Your task to perform on an android device: change the clock display to digital Image 0: 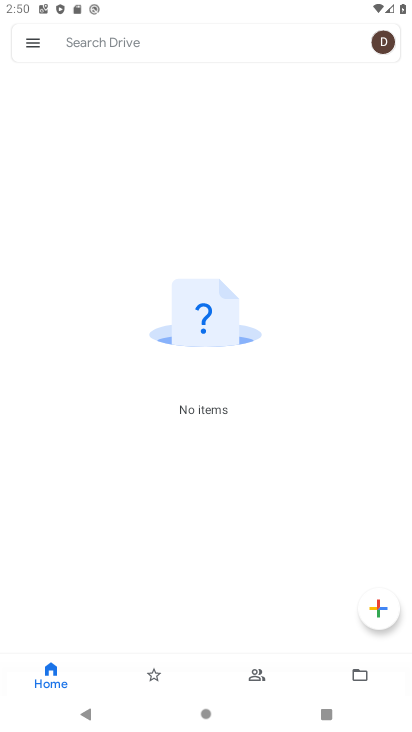
Step 0: press home button
Your task to perform on an android device: change the clock display to digital Image 1: 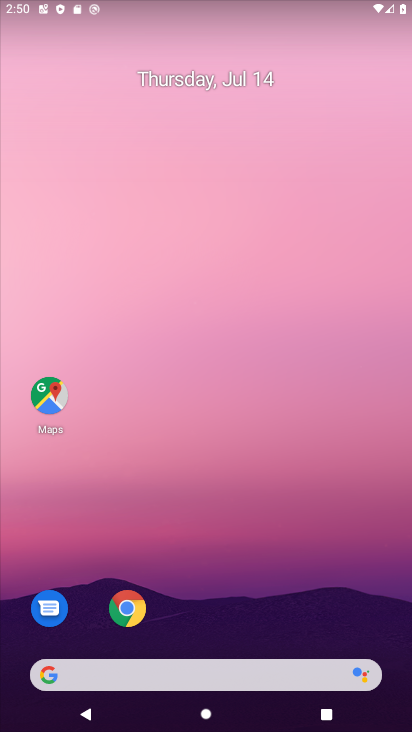
Step 1: drag from (22, 615) to (269, 220)
Your task to perform on an android device: change the clock display to digital Image 2: 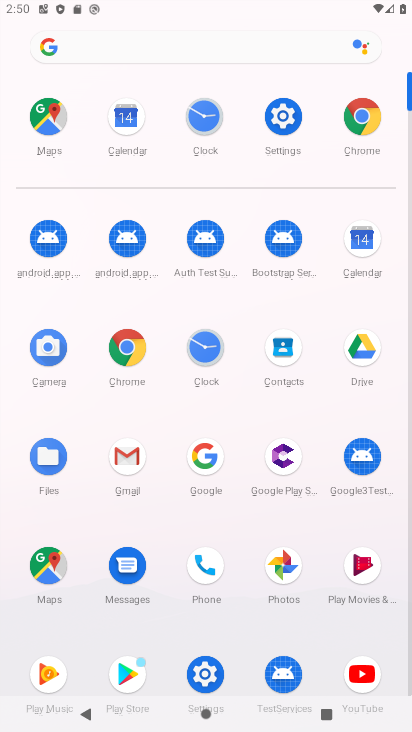
Step 2: click (209, 357)
Your task to perform on an android device: change the clock display to digital Image 3: 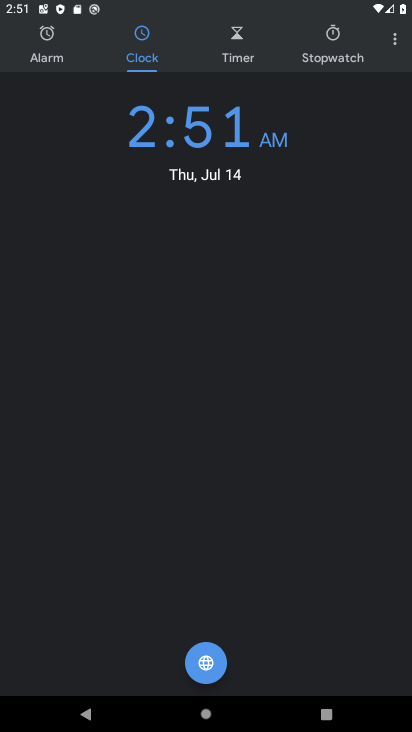
Step 3: click (388, 45)
Your task to perform on an android device: change the clock display to digital Image 4: 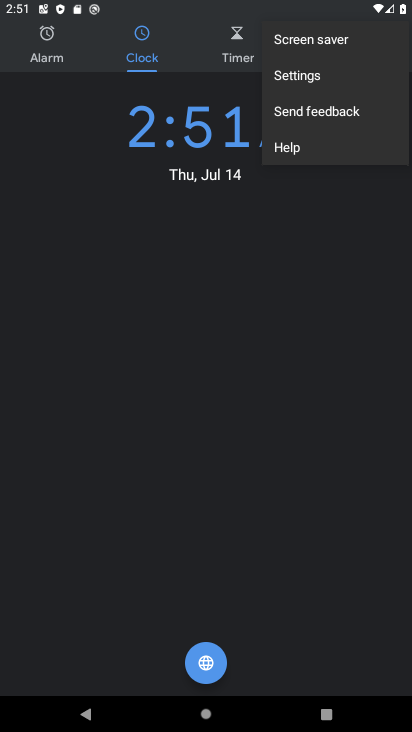
Step 4: click (332, 77)
Your task to perform on an android device: change the clock display to digital Image 5: 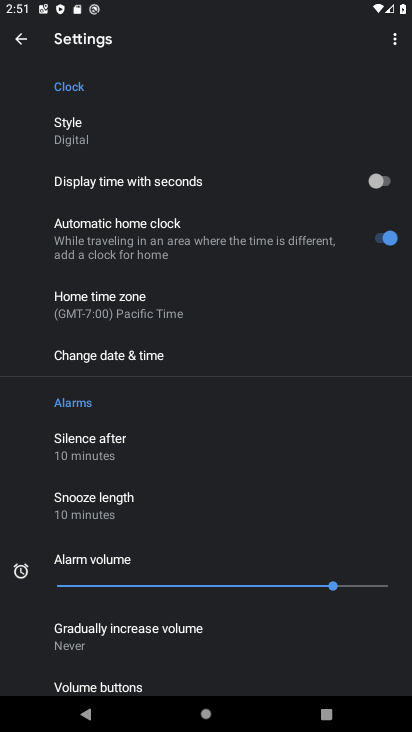
Step 5: click (88, 128)
Your task to perform on an android device: change the clock display to digital Image 6: 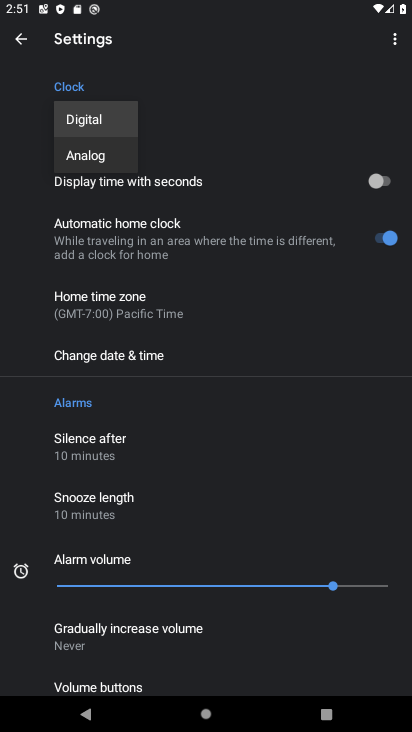
Step 6: click (108, 123)
Your task to perform on an android device: change the clock display to digital Image 7: 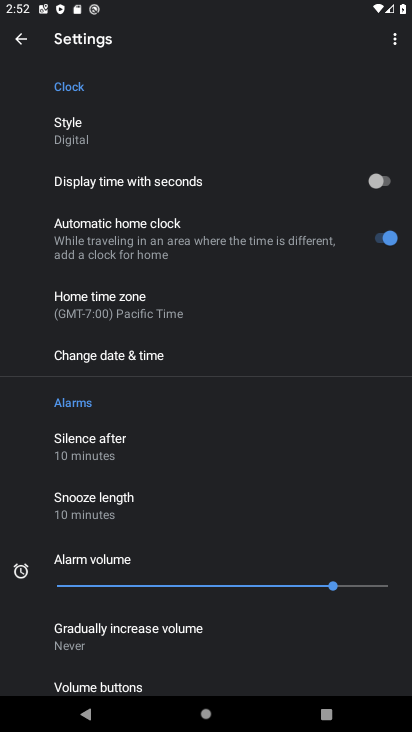
Step 7: task complete